Your task to perform on an android device: change the upload size in google photos Image 0: 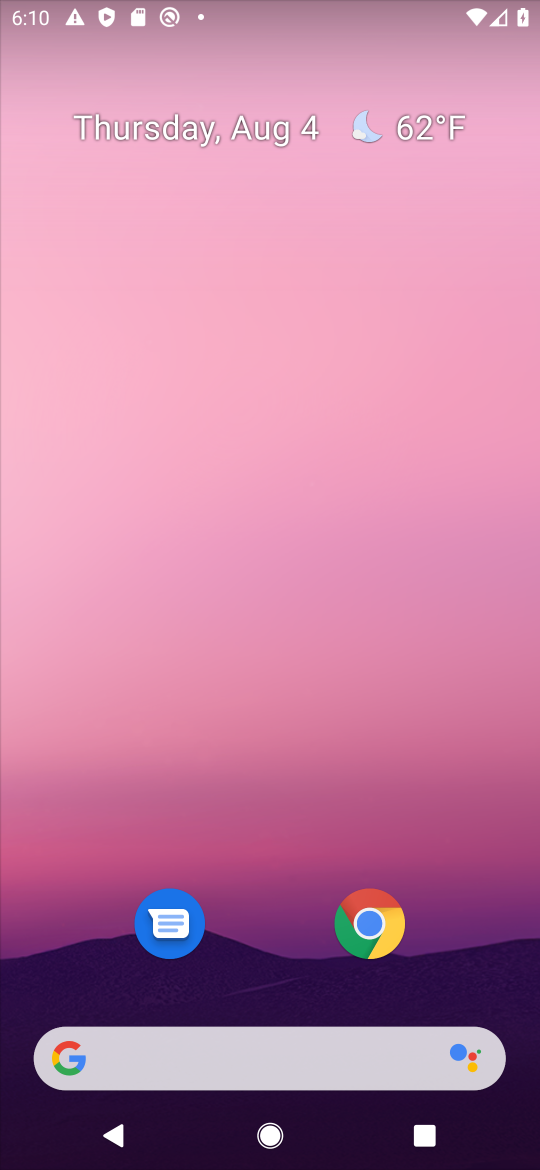
Step 0: drag from (468, 971) to (333, 356)
Your task to perform on an android device: change the upload size in google photos Image 1: 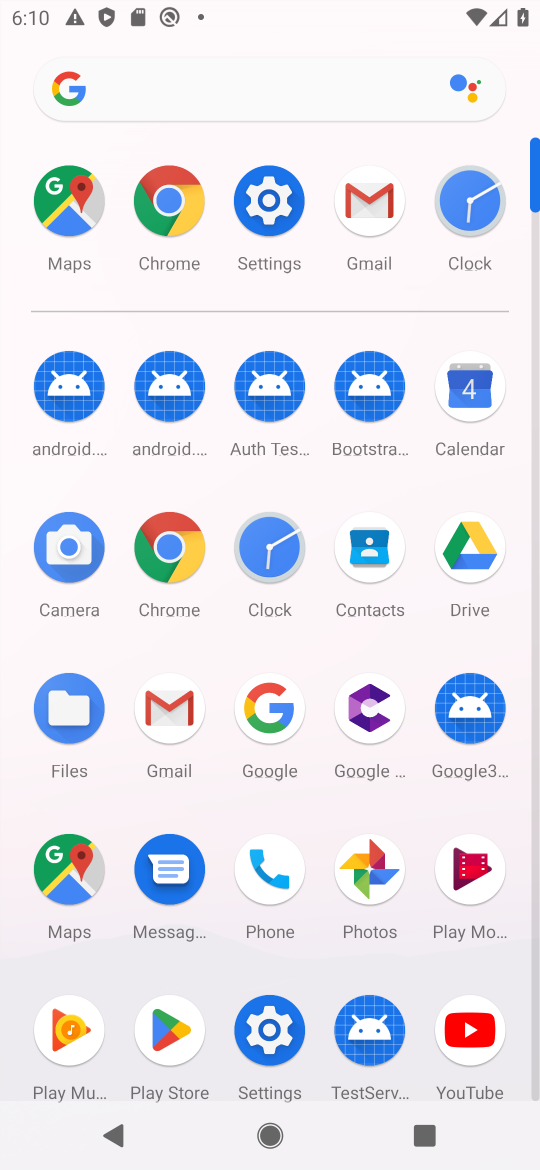
Step 1: click (350, 871)
Your task to perform on an android device: change the upload size in google photos Image 2: 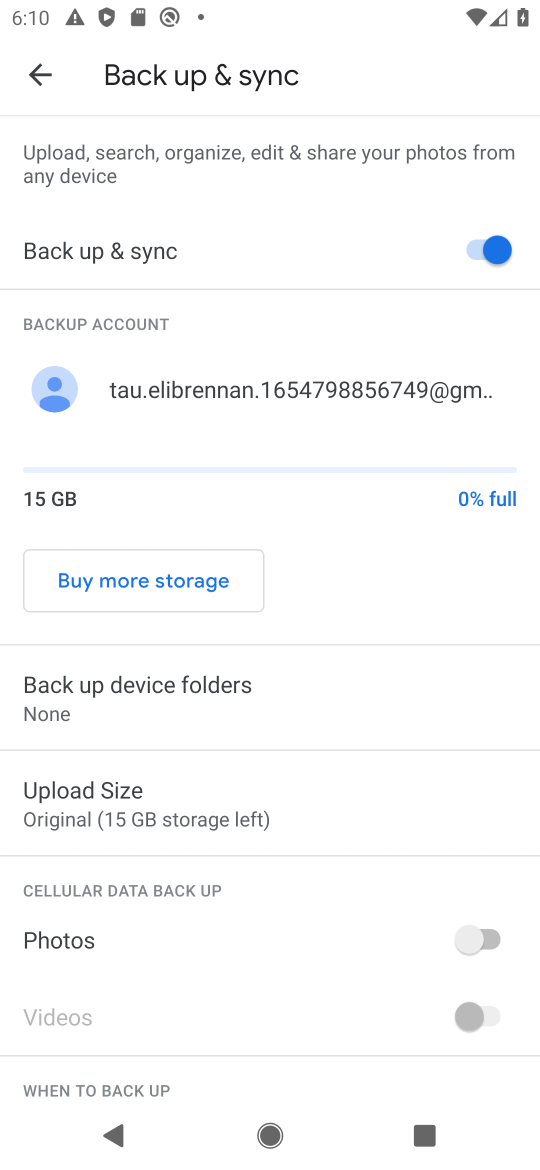
Step 2: click (228, 789)
Your task to perform on an android device: change the upload size in google photos Image 3: 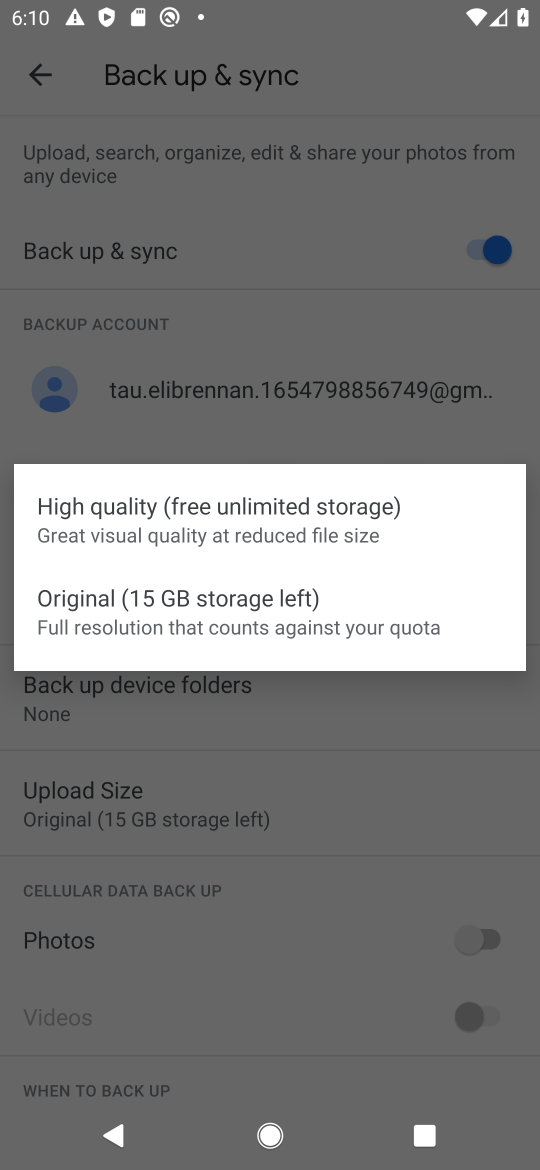
Step 3: click (237, 509)
Your task to perform on an android device: change the upload size in google photos Image 4: 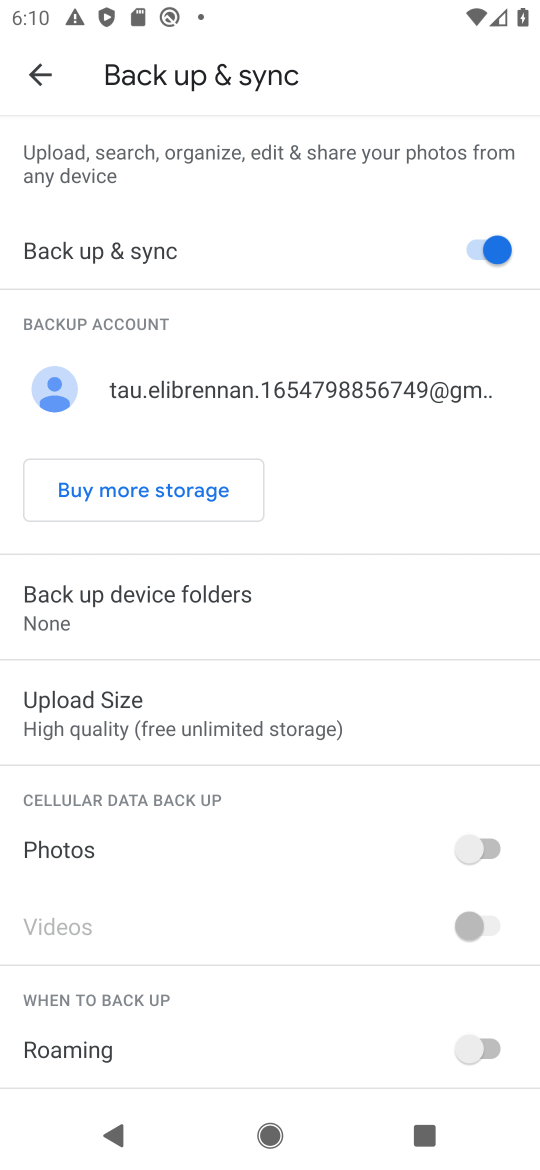
Step 4: task complete